Your task to perform on an android device: turn notification dots on Image 0: 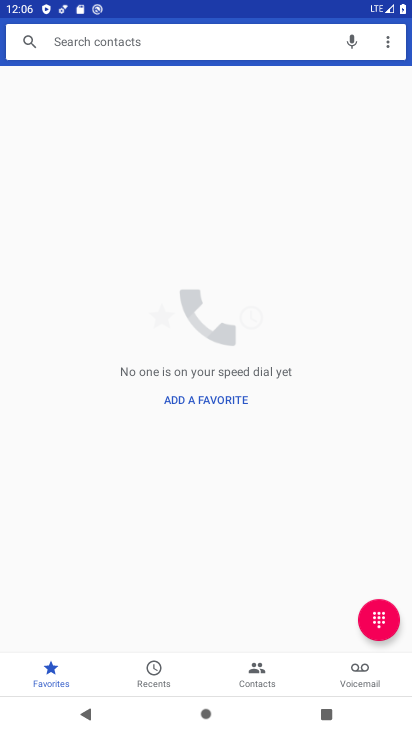
Step 0: press home button
Your task to perform on an android device: turn notification dots on Image 1: 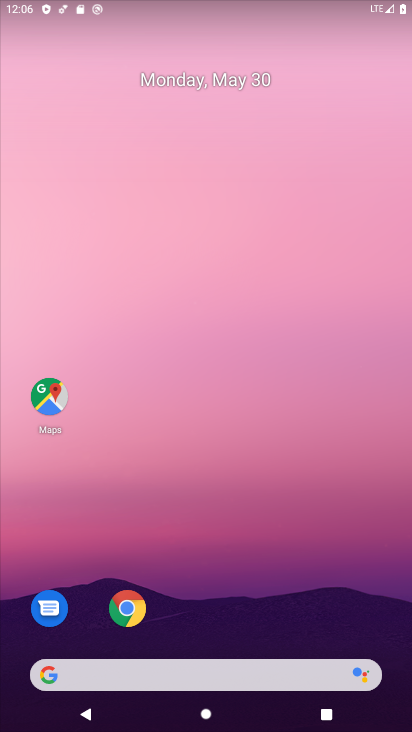
Step 1: drag from (202, 618) to (310, 140)
Your task to perform on an android device: turn notification dots on Image 2: 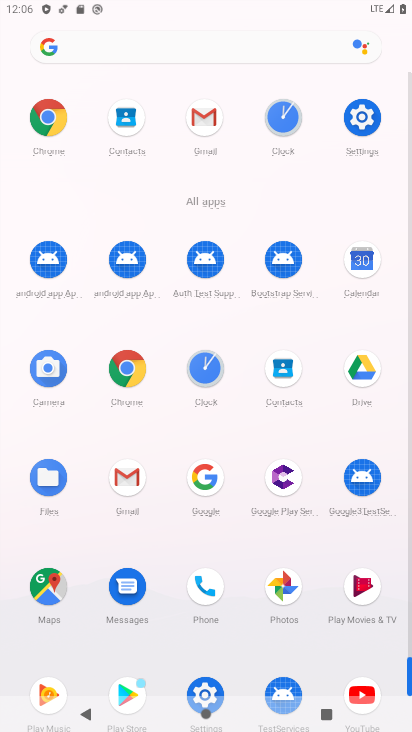
Step 2: click (380, 132)
Your task to perform on an android device: turn notification dots on Image 3: 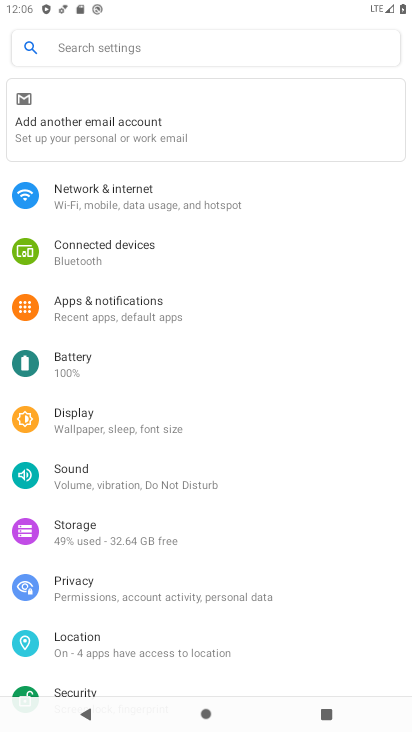
Step 3: click (150, 318)
Your task to perform on an android device: turn notification dots on Image 4: 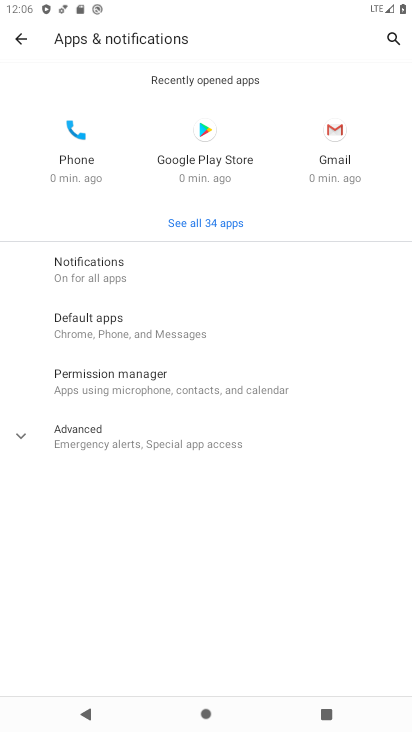
Step 4: click (92, 280)
Your task to perform on an android device: turn notification dots on Image 5: 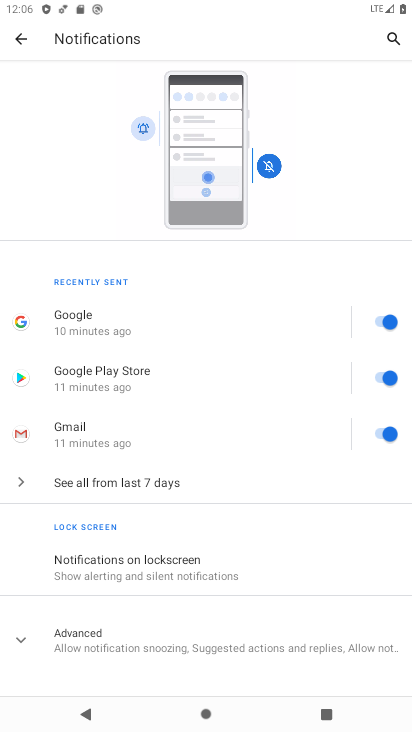
Step 5: drag from (213, 571) to (240, 320)
Your task to perform on an android device: turn notification dots on Image 6: 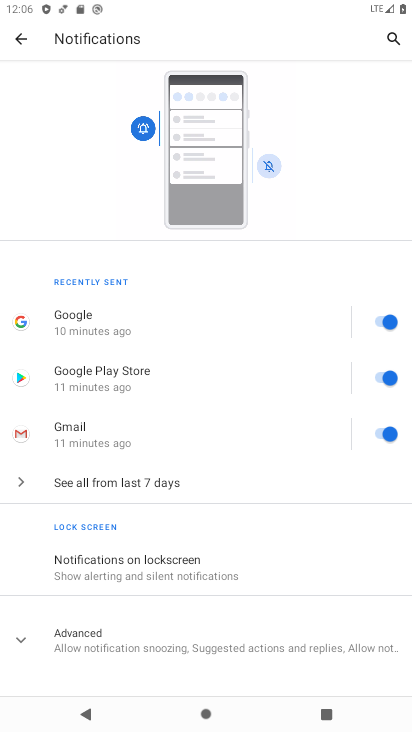
Step 6: click (202, 640)
Your task to perform on an android device: turn notification dots on Image 7: 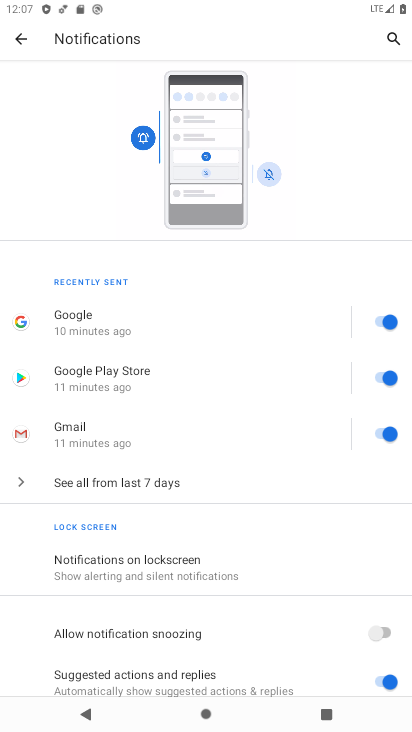
Step 7: task complete